Your task to perform on an android device: turn off priority inbox in the gmail app Image 0: 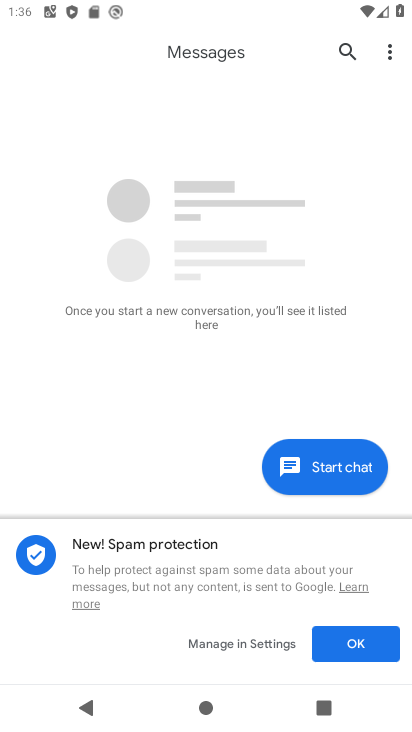
Step 0: press home button
Your task to perform on an android device: turn off priority inbox in the gmail app Image 1: 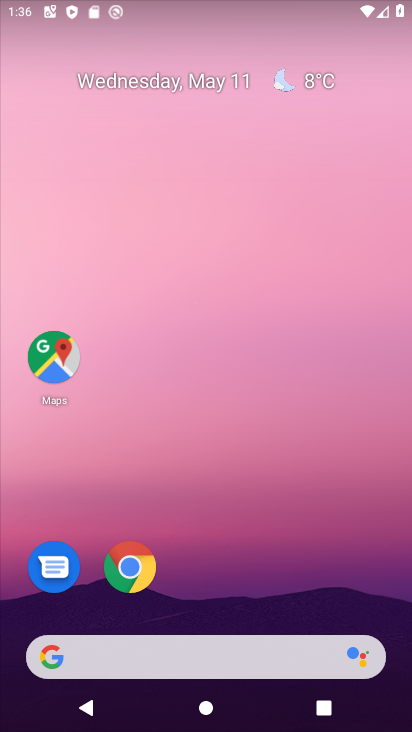
Step 1: drag from (246, 578) to (236, 323)
Your task to perform on an android device: turn off priority inbox in the gmail app Image 2: 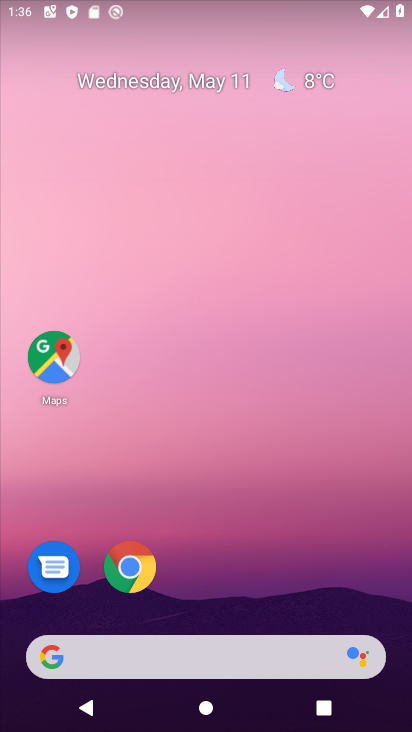
Step 2: drag from (286, 608) to (248, 257)
Your task to perform on an android device: turn off priority inbox in the gmail app Image 3: 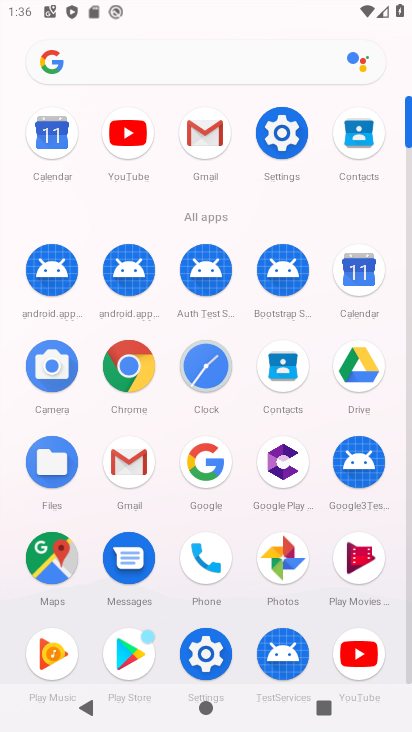
Step 3: click (196, 133)
Your task to perform on an android device: turn off priority inbox in the gmail app Image 4: 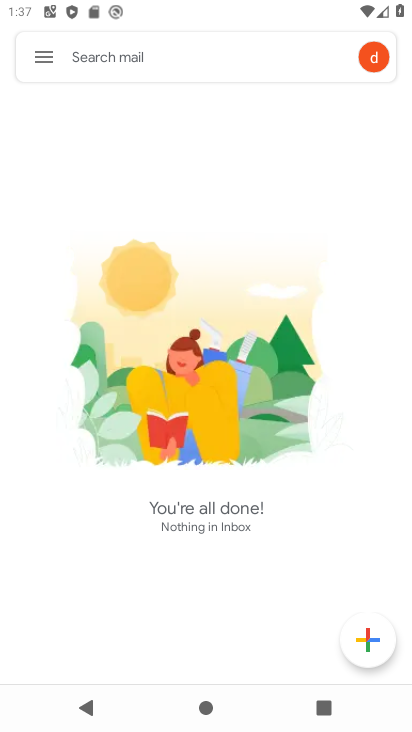
Step 4: click (53, 64)
Your task to perform on an android device: turn off priority inbox in the gmail app Image 5: 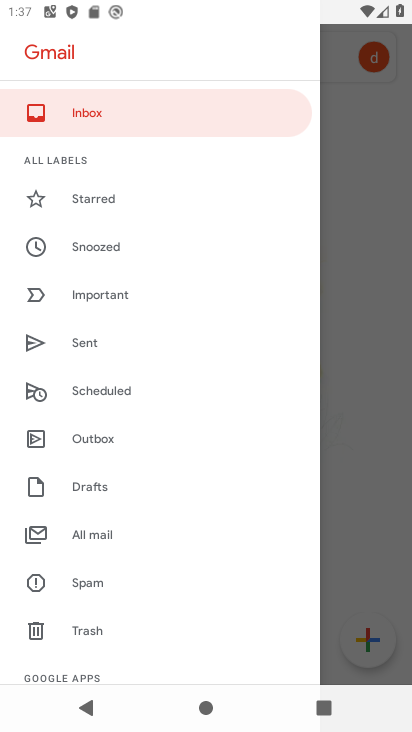
Step 5: drag from (200, 648) to (161, 407)
Your task to perform on an android device: turn off priority inbox in the gmail app Image 6: 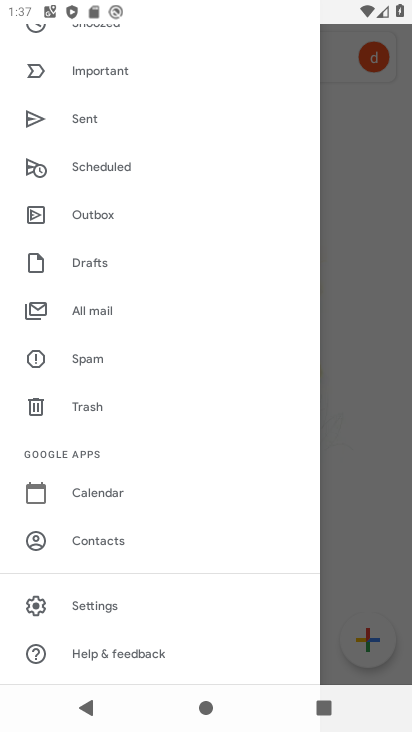
Step 6: click (164, 604)
Your task to perform on an android device: turn off priority inbox in the gmail app Image 7: 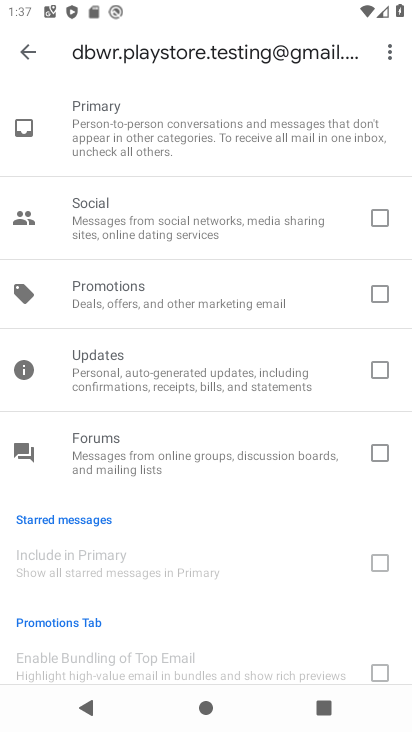
Step 7: click (35, 51)
Your task to perform on an android device: turn off priority inbox in the gmail app Image 8: 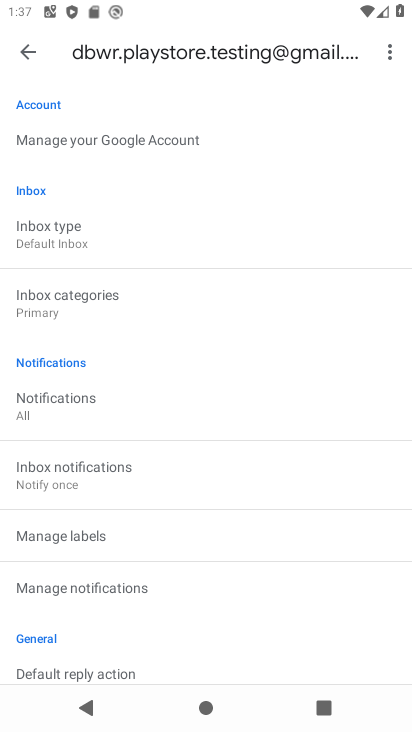
Step 8: task complete